Your task to perform on an android device: turn off airplane mode Image 0: 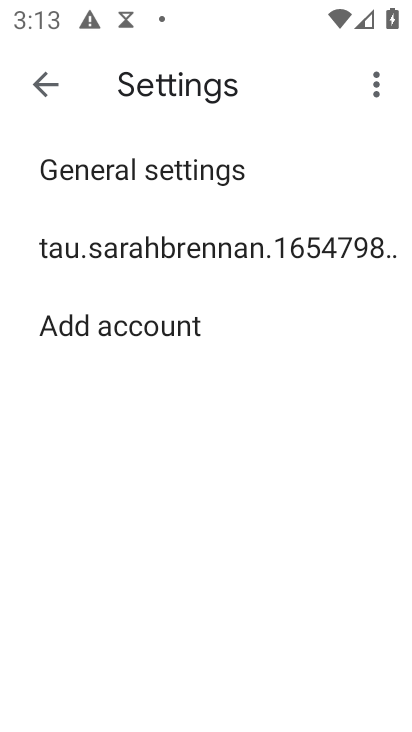
Step 0: press home button
Your task to perform on an android device: turn off airplane mode Image 1: 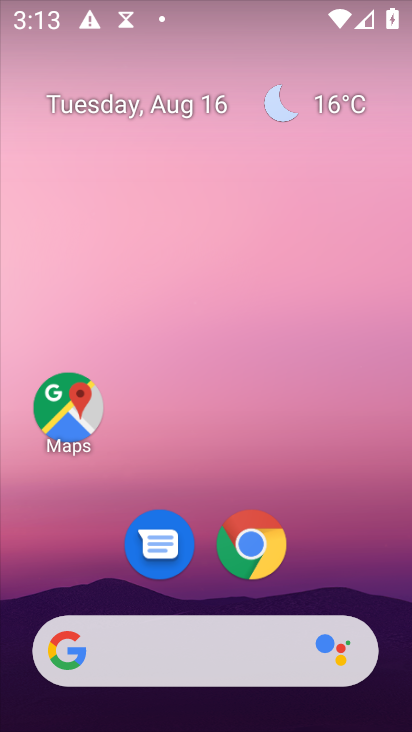
Step 1: drag from (180, 672) to (211, 61)
Your task to perform on an android device: turn off airplane mode Image 2: 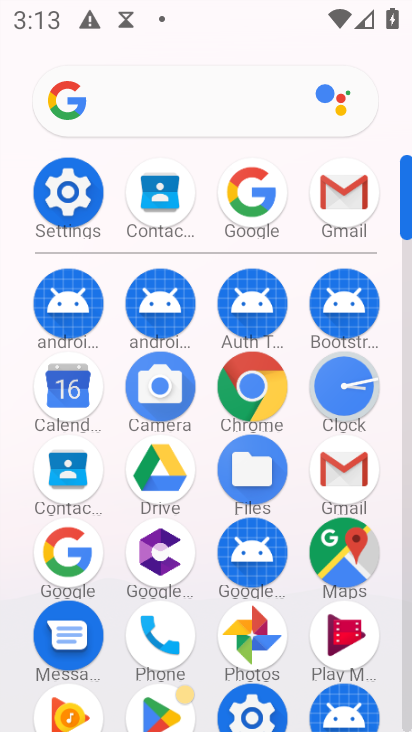
Step 2: click (67, 193)
Your task to perform on an android device: turn off airplane mode Image 3: 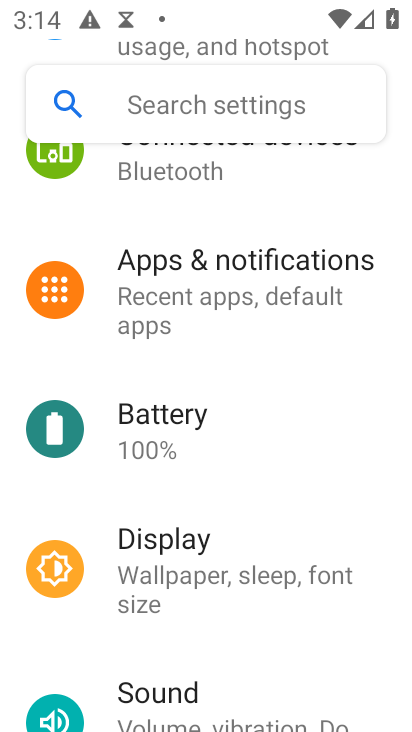
Step 3: drag from (256, 345) to (268, 476)
Your task to perform on an android device: turn off airplane mode Image 4: 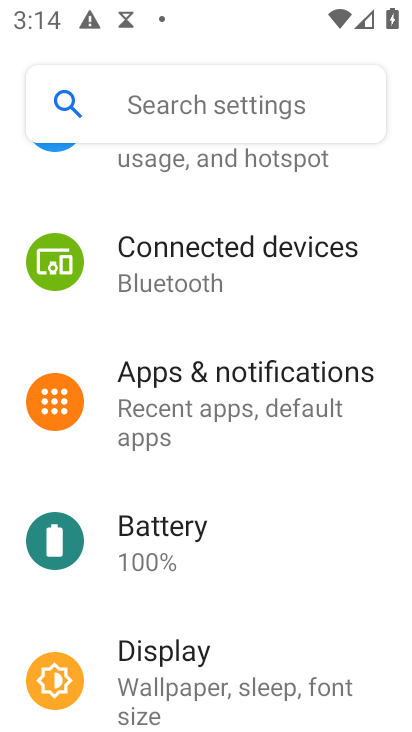
Step 4: drag from (266, 317) to (268, 485)
Your task to perform on an android device: turn off airplane mode Image 5: 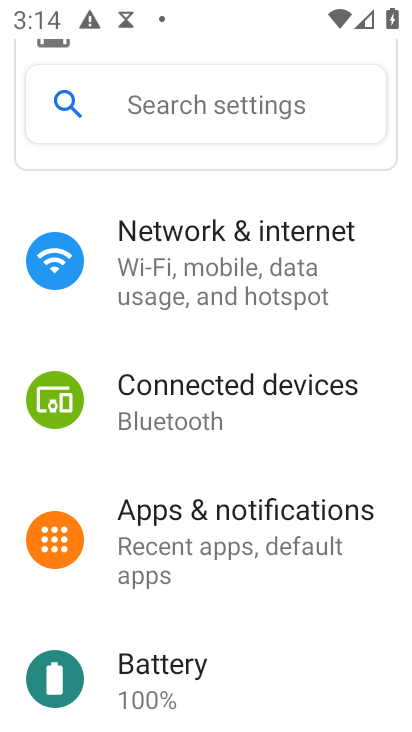
Step 5: click (246, 239)
Your task to perform on an android device: turn off airplane mode Image 6: 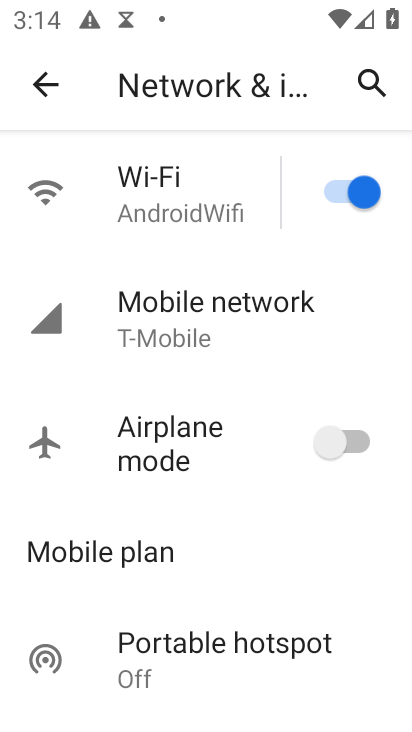
Step 6: task complete